Your task to perform on an android device: search for starred emails in the gmail app Image 0: 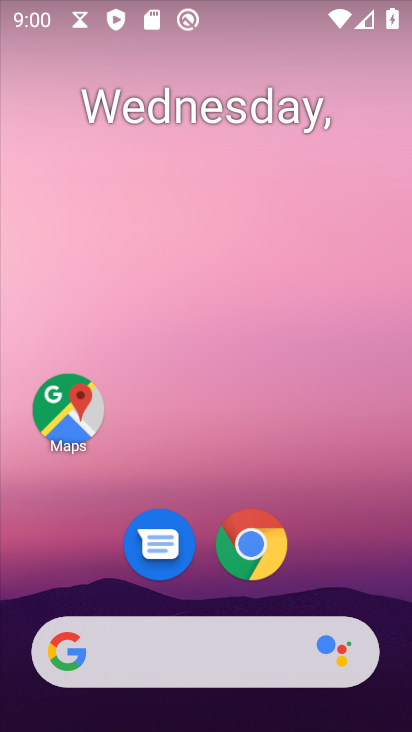
Step 0: drag from (130, 656) to (303, 110)
Your task to perform on an android device: search for starred emails in the gmail app Image 1: 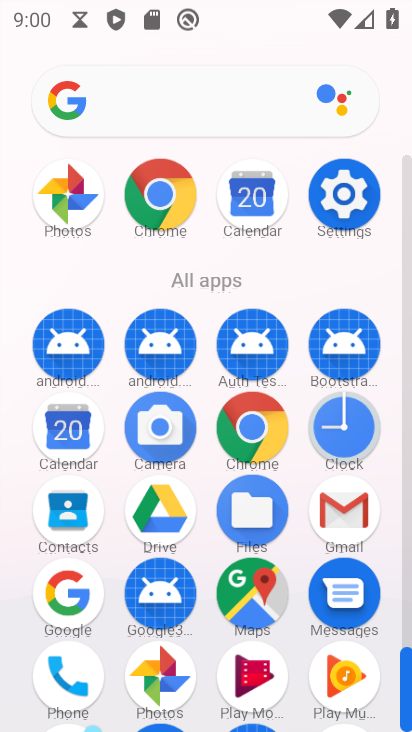
Step 1: click (348, 520)
Your task to perform on an android device: search for starred emails in the gmail app Image 2: 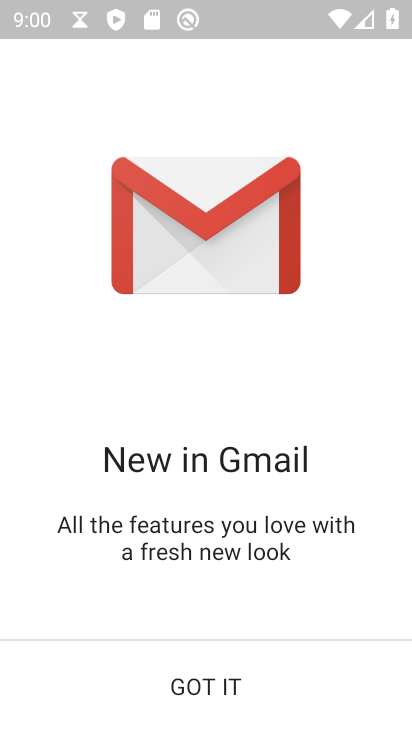
Step 2: click (201, 672)
Your task to perform on an android device: search for starred emails in the gmail app Image 3: 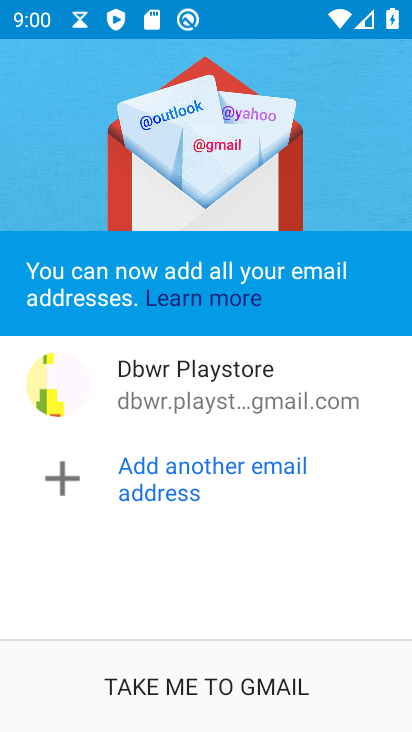
Step 3: click (201, 672)
Your task to perform on an android device: search for starred emails in the gmail app Image 4: 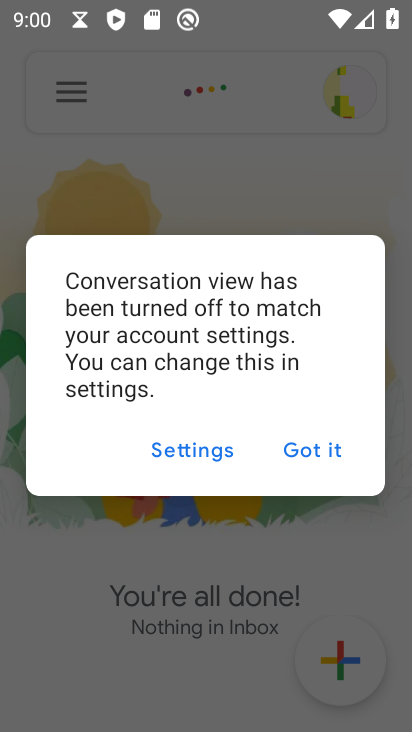
Step 4: click (336, 456)
Your task to perform on an android device: search for starred emails in the gmail app Image 5: 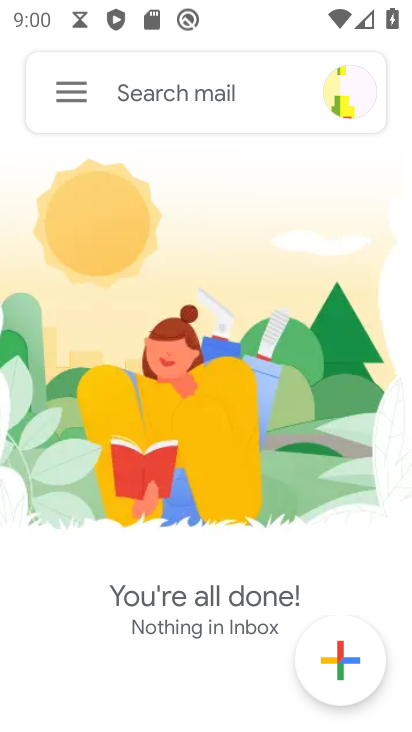
Step 5: click (69, 92)
Your task to perform on an android device: search for starred emails in the gmail app Image 6: 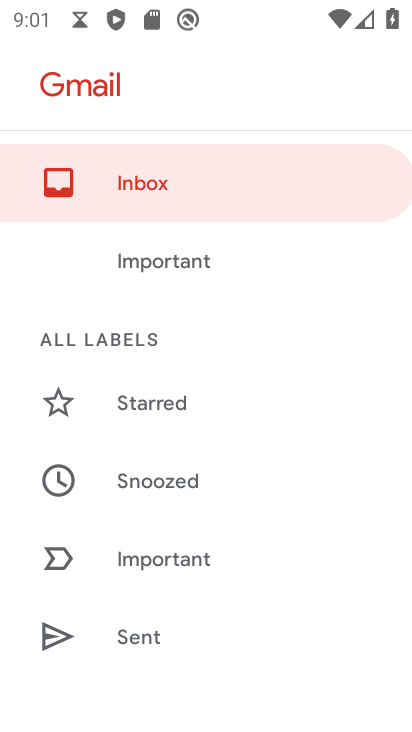
Step 6: click (162, 406)
Your task to perform on an android device: search for starred emails in the gmail app Image 7: 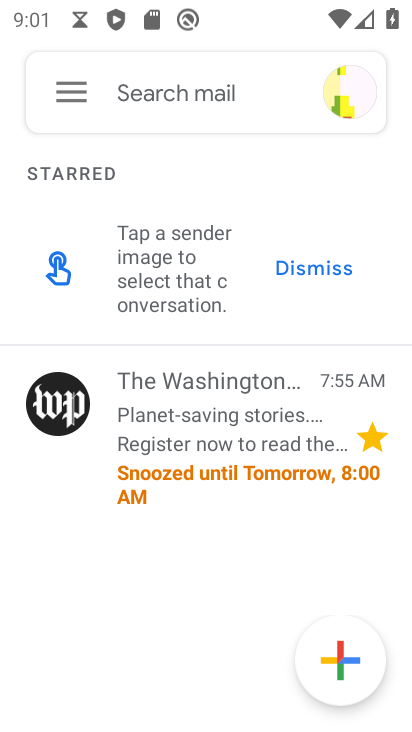
Step 7: task complete